Your task to perform on an android device: move a message to another label in the gmail app Image 0: 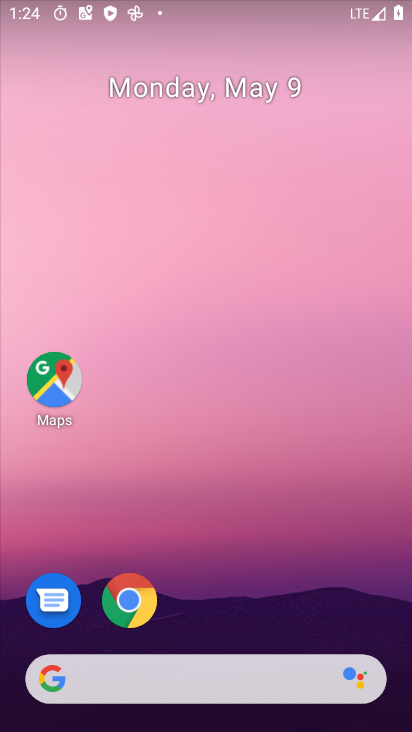
Step 0: drag from (219, 549) to (202, 184)
Your task to perform on an android device: move a message to another label in the gmail app Image 1: 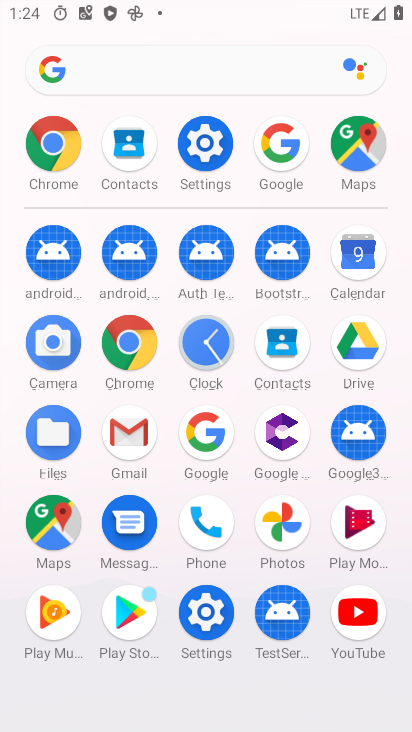
Step 1: click (124, 431)
Your task to perform on an android device: move a message to another label in the gmail app Image 2: 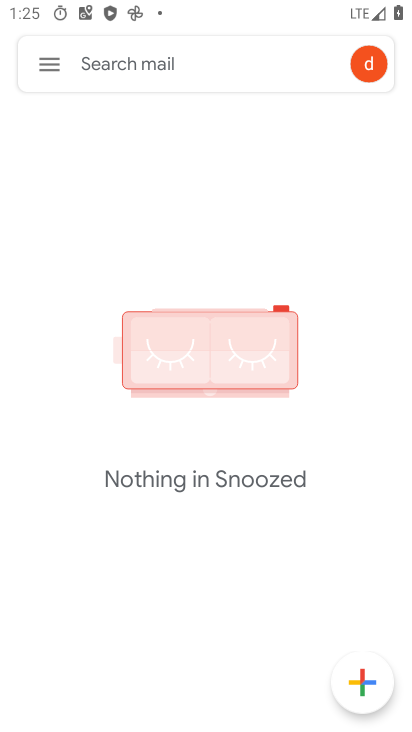
Step 2: click (35, 74)
Your task to perform on an android device: move a message to another label in the gmail app Image 3: 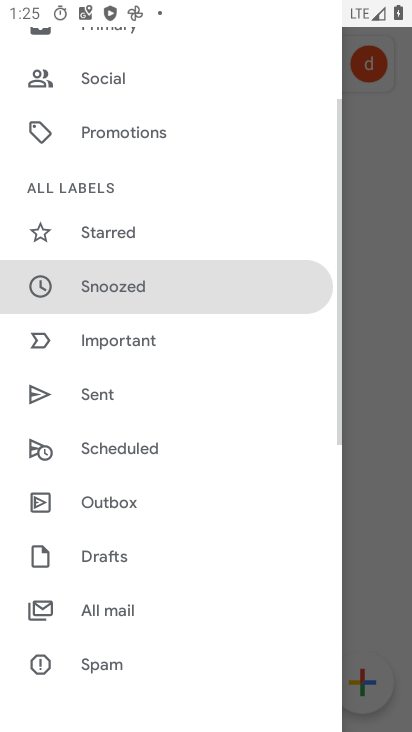
Step 3: click (154, 609)
Your task to perform on an android device: move a message to another label in the gmail app Image 4: 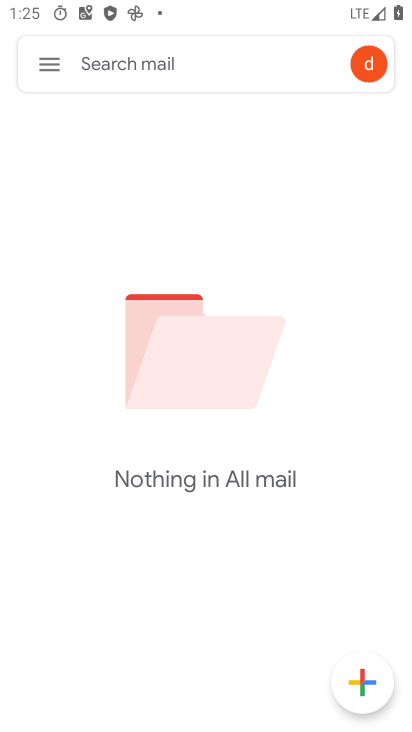
Step 4: task complete